Your task to perform on an android device: open app "Pinterest" (install if not already installed) and enter user name: "Switzerland@yahoo.com" and password: "arithmetics" Image 0: 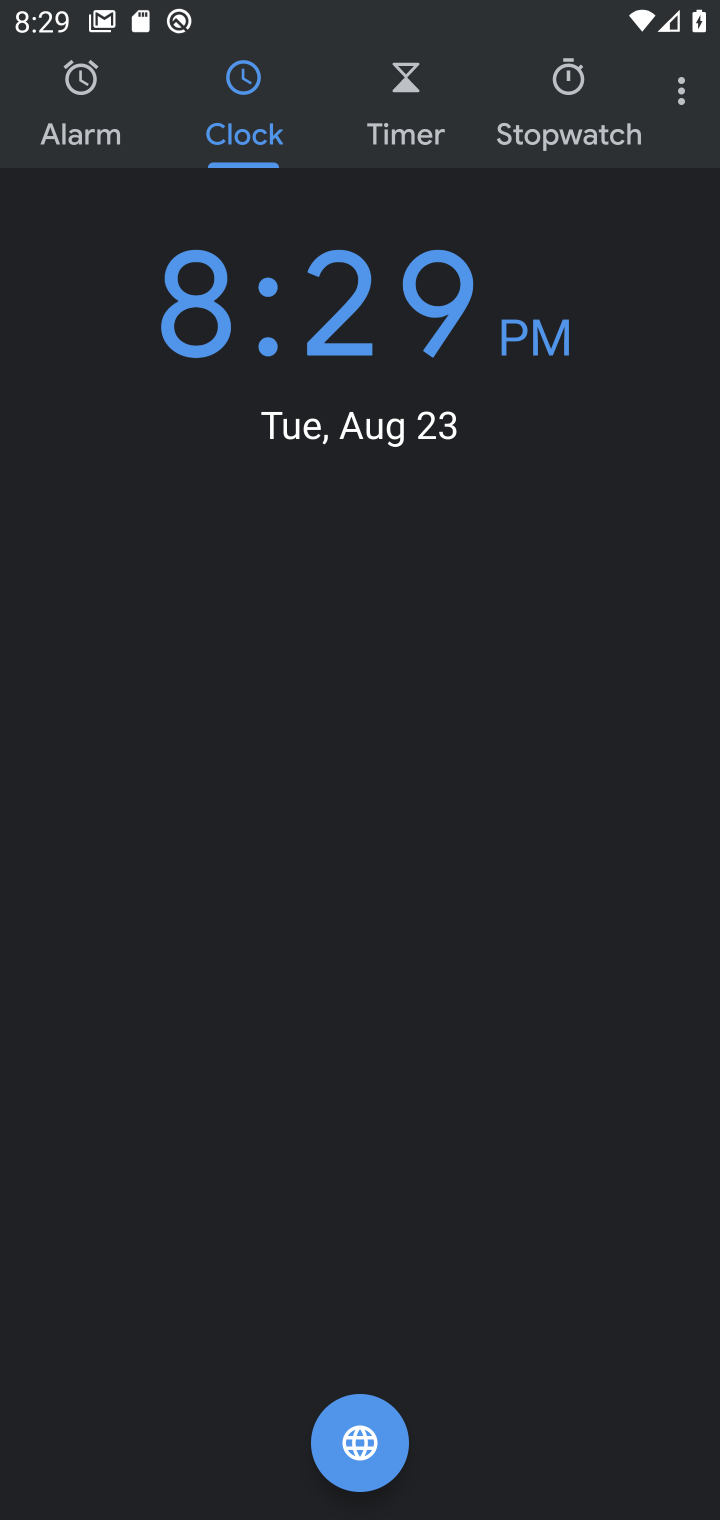
Step 0: press home button
Your task to perform on an android device: open app "Pinterest" (install if not already installed) and enter user name: "Switzerland@yahoo.com" and password: "arithmetics" Image 1: 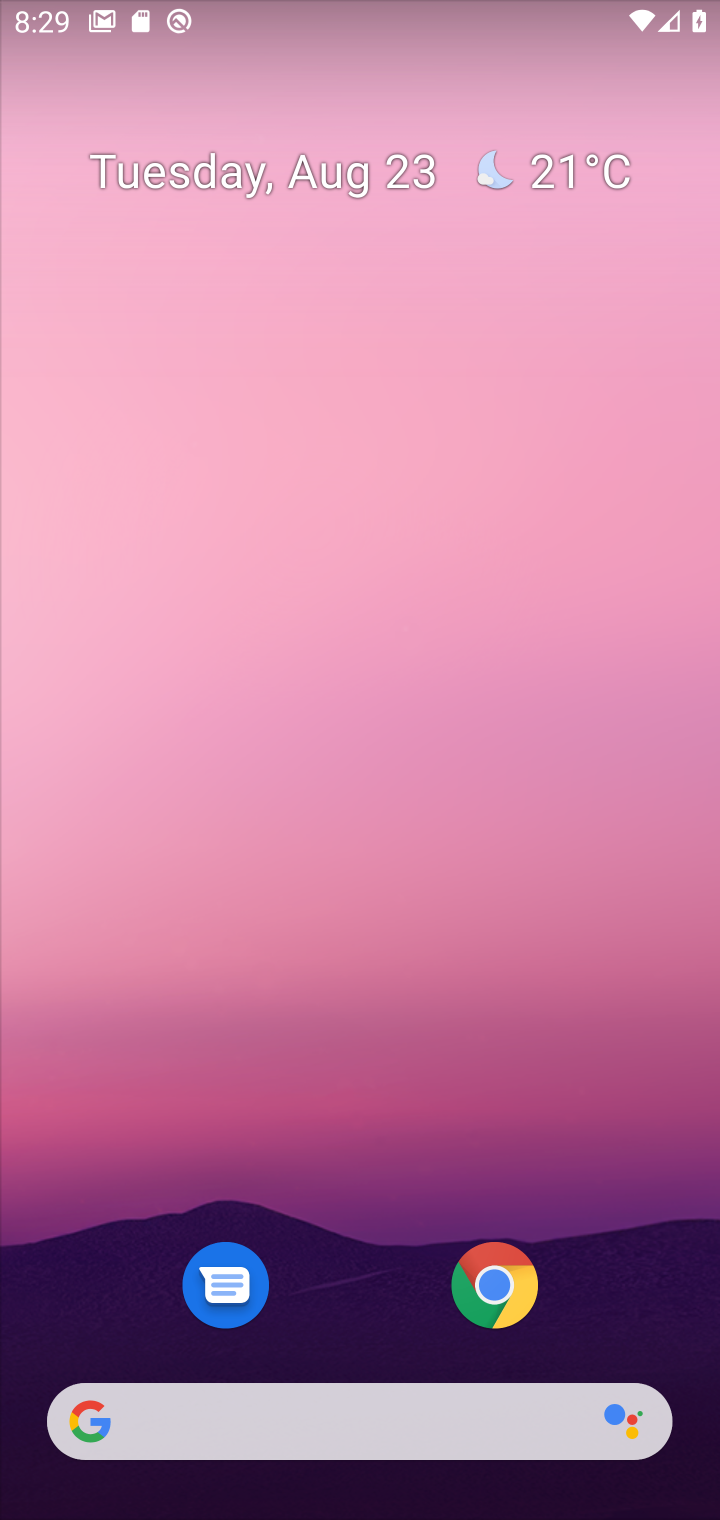
Step 1: drag from (673, 1366) to (601, 256)
Your task to perform on an android device: open app "Pinterest" (install if not already installed) and enter user name: "Switzerland@yahoo.com" and password: "arithmetics" Image 2: 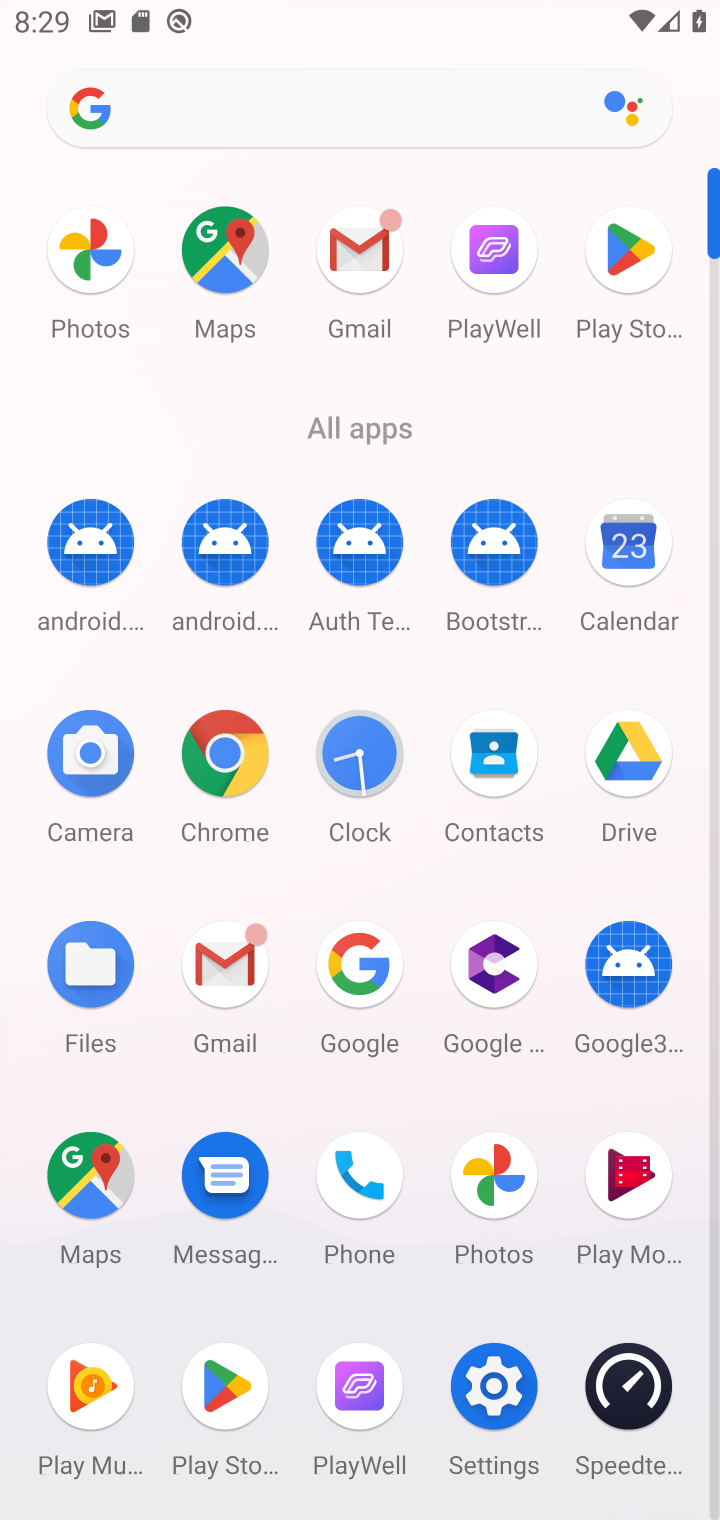
Step 2: click (234, 1383)
Your task to perform on an android device: open app "Pinterest" (install if not already installed) and enter user name: "Switzerland@yahoo.com" and password: "arithmetics" Image 3: 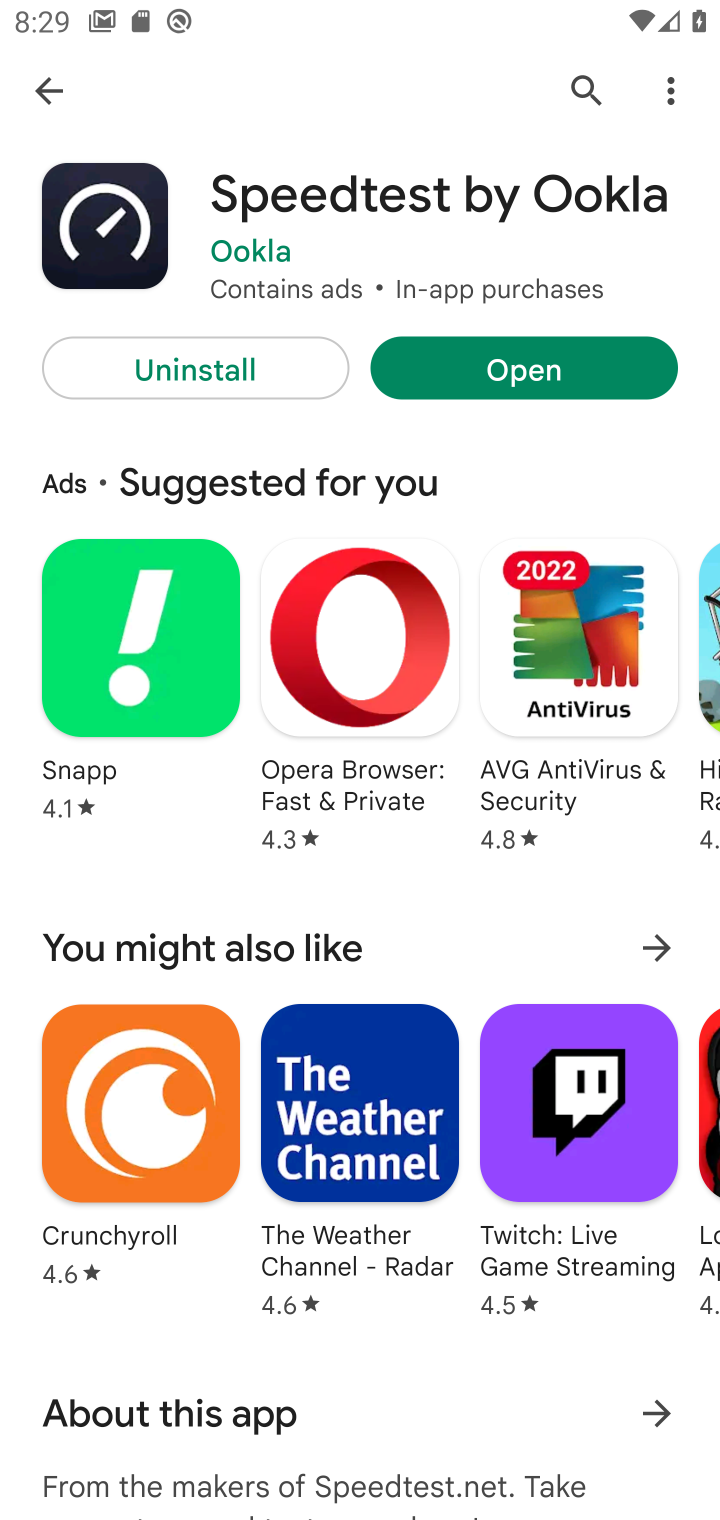
Step 3: click (580, 78)
Your task to perform on an android device: open app "Pinterest" (install if not already installed) and enter user name: "Switzerland@yahoo.com" and password: "arithmetics" Image 4: 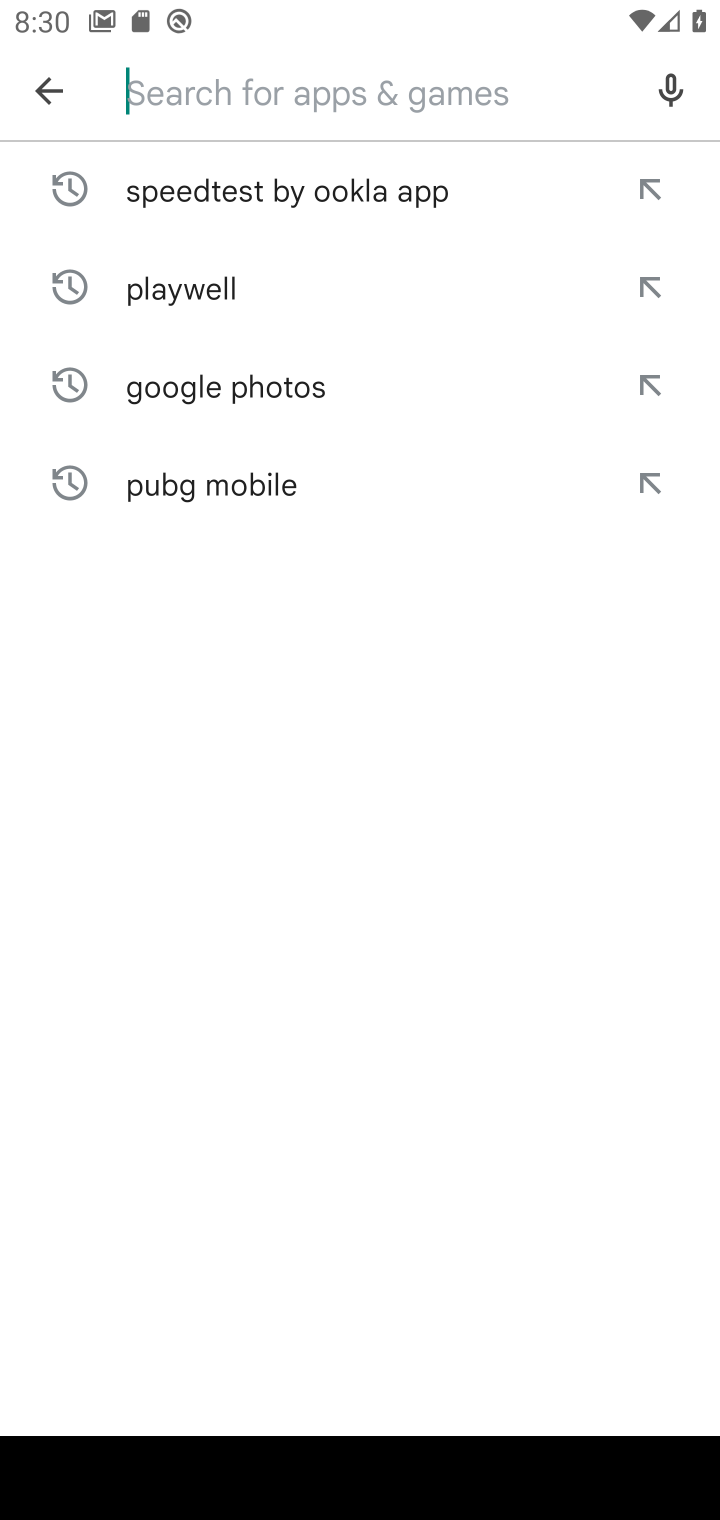
Step 4: type "Pinterest"
Your task to perform on an android device: open app "Pinterest" (install if not already installed) and enter user name: "Switzerland@yahoo.com" and password: "arithmetics" Image 5: 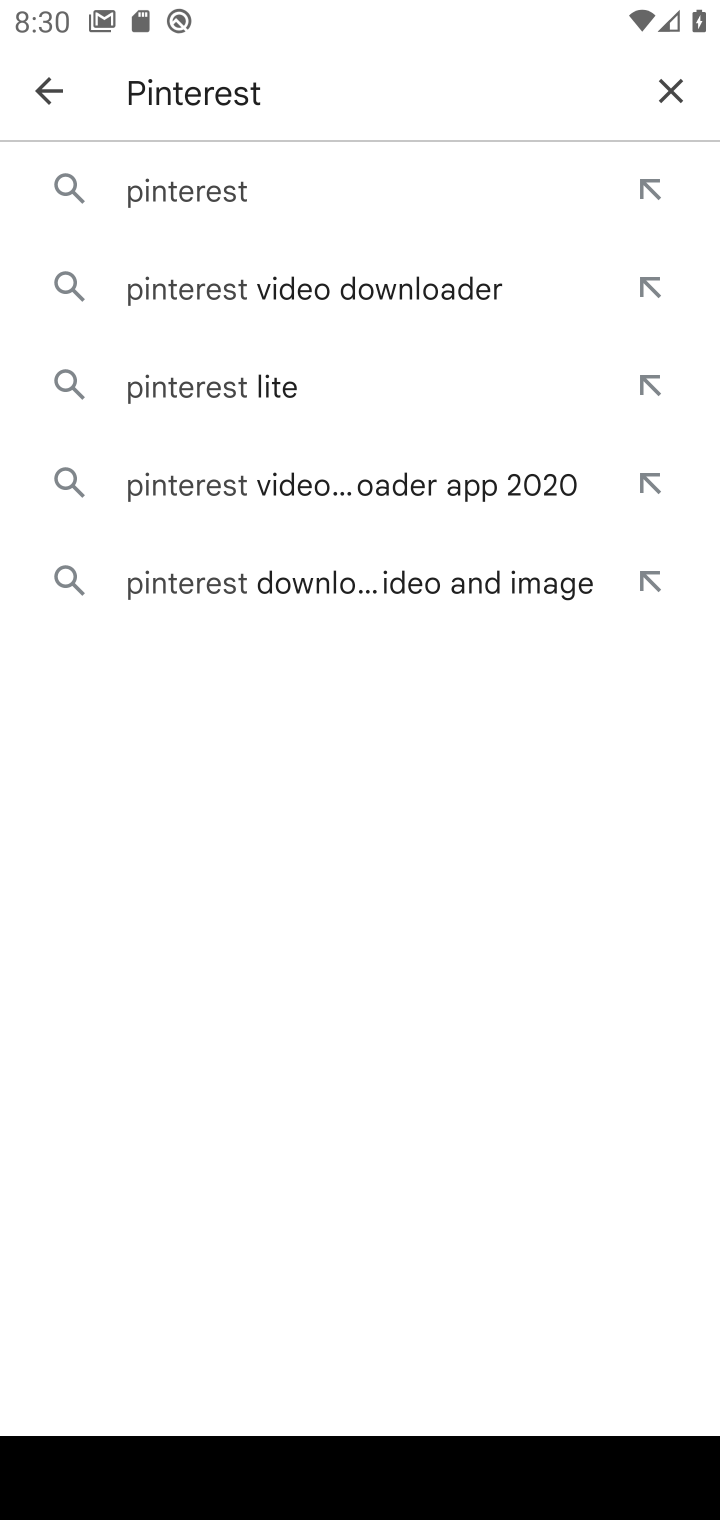
Step 5: click (178, 172)
Your task to perform on an android device: open app "Pinterest" (install if not already installed) and enter user name: "Switzerland@yahoo.com" and password: "arithmetics" Image 6: 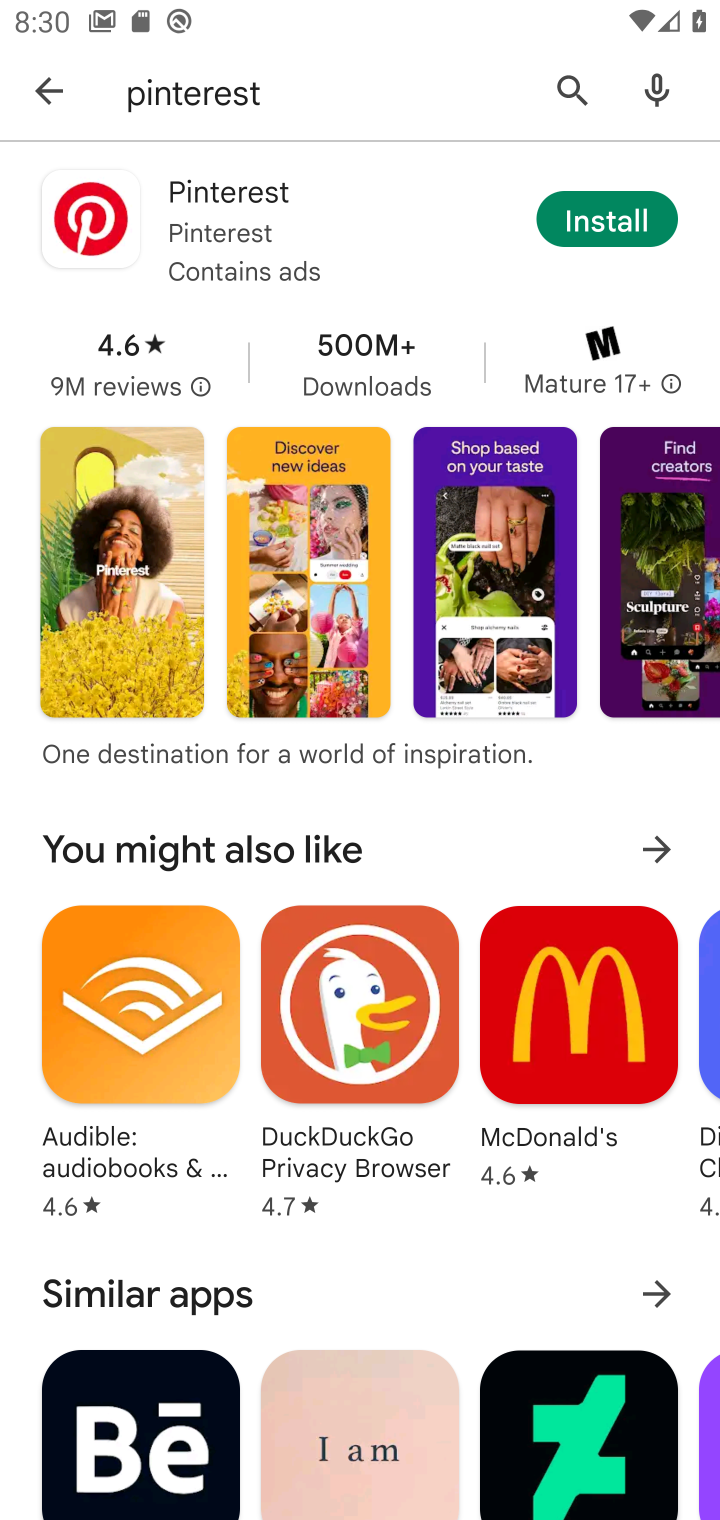
Step 6: click (616, 215)
Your task to perform on an android device: open app "Pinterest" (install if not already installed) and enter user name: "Switzerland@yahoo.com" and password: "arithmetics" Image 7: 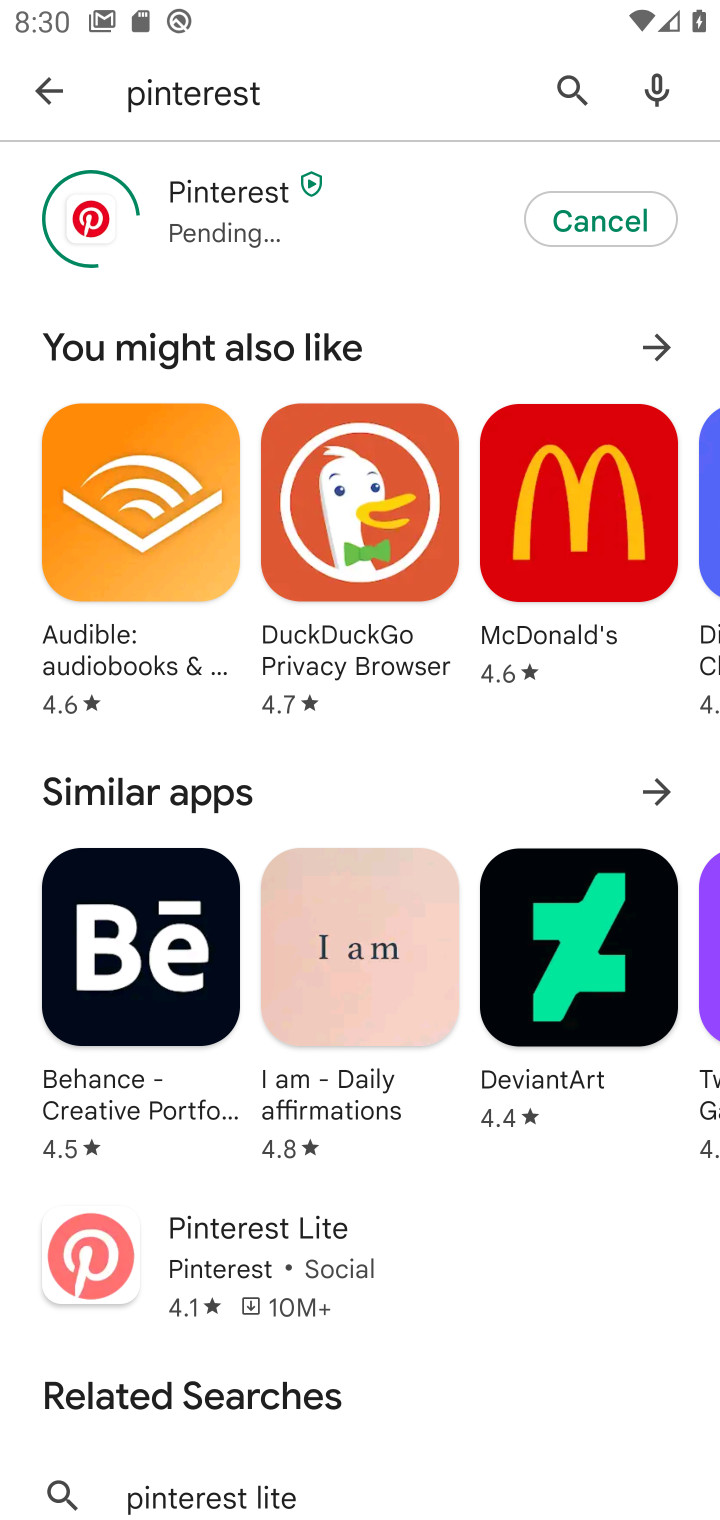
Step 7: click (217, 191)
Your task to perform on an android device: open app "Pinterest" (install if not already installed) and enter user name: "Switzerland@yahoo.com" and password: "arithmetics" Image 8: 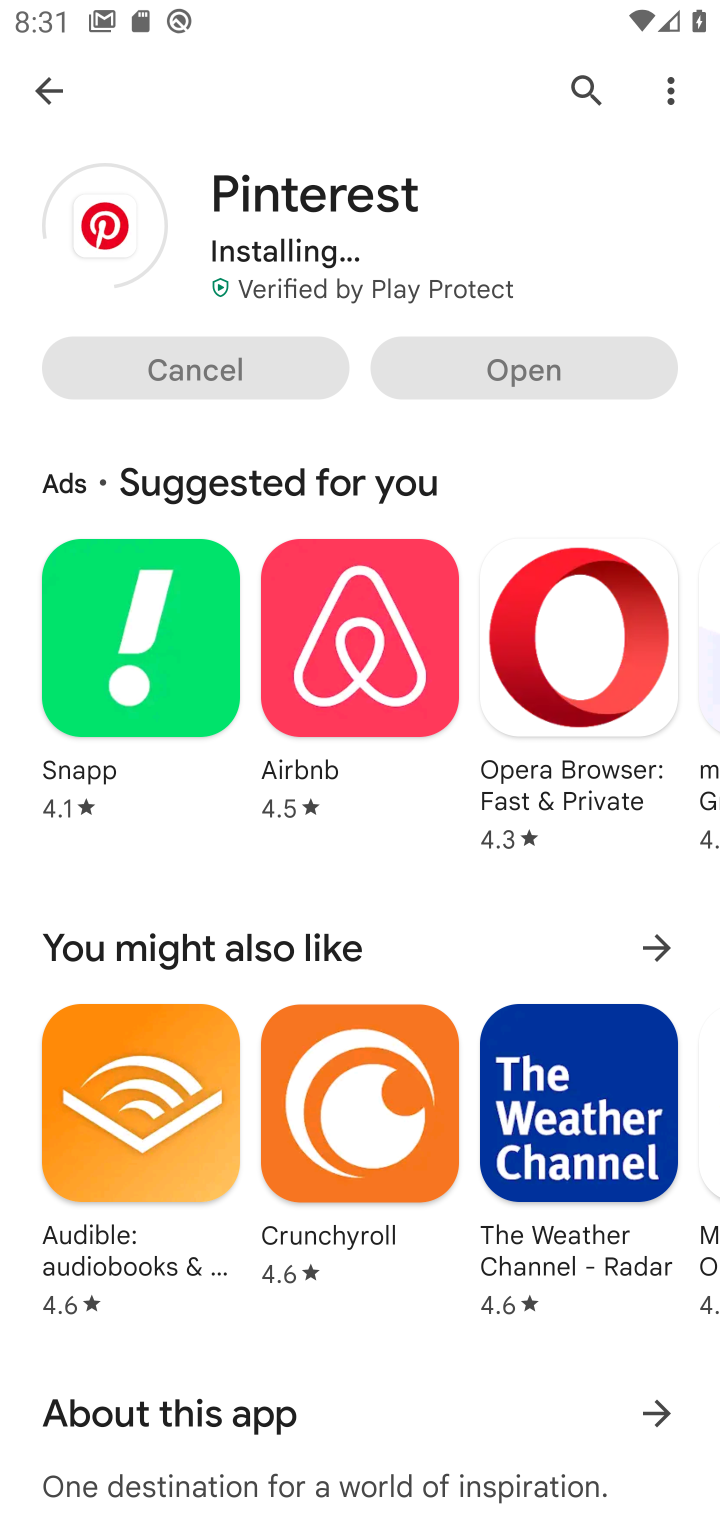
Step 8: click (388, 233)
Your task to perform on an android device: open app "Pinterest" (install if not already installed) and enter user name: "Switzerland@yahoo.com" and password: "arithmetics" Image 9: 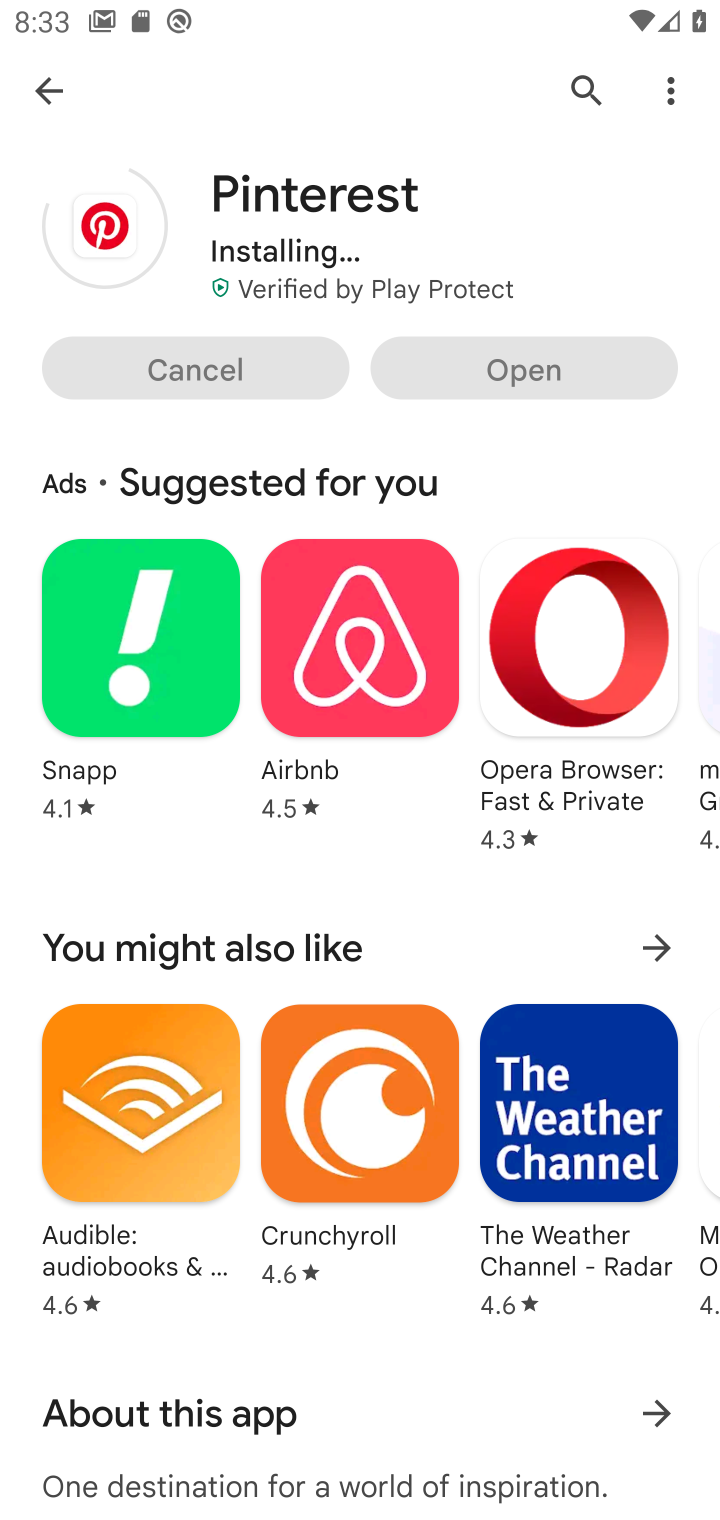
Step 9: click (356, 236)
Your task to perform on an android device: open app "Pinterest" (install if not already installed) and enter user name: "Switzerland@yahoo.com" and password: "arithmetics" Image 10: 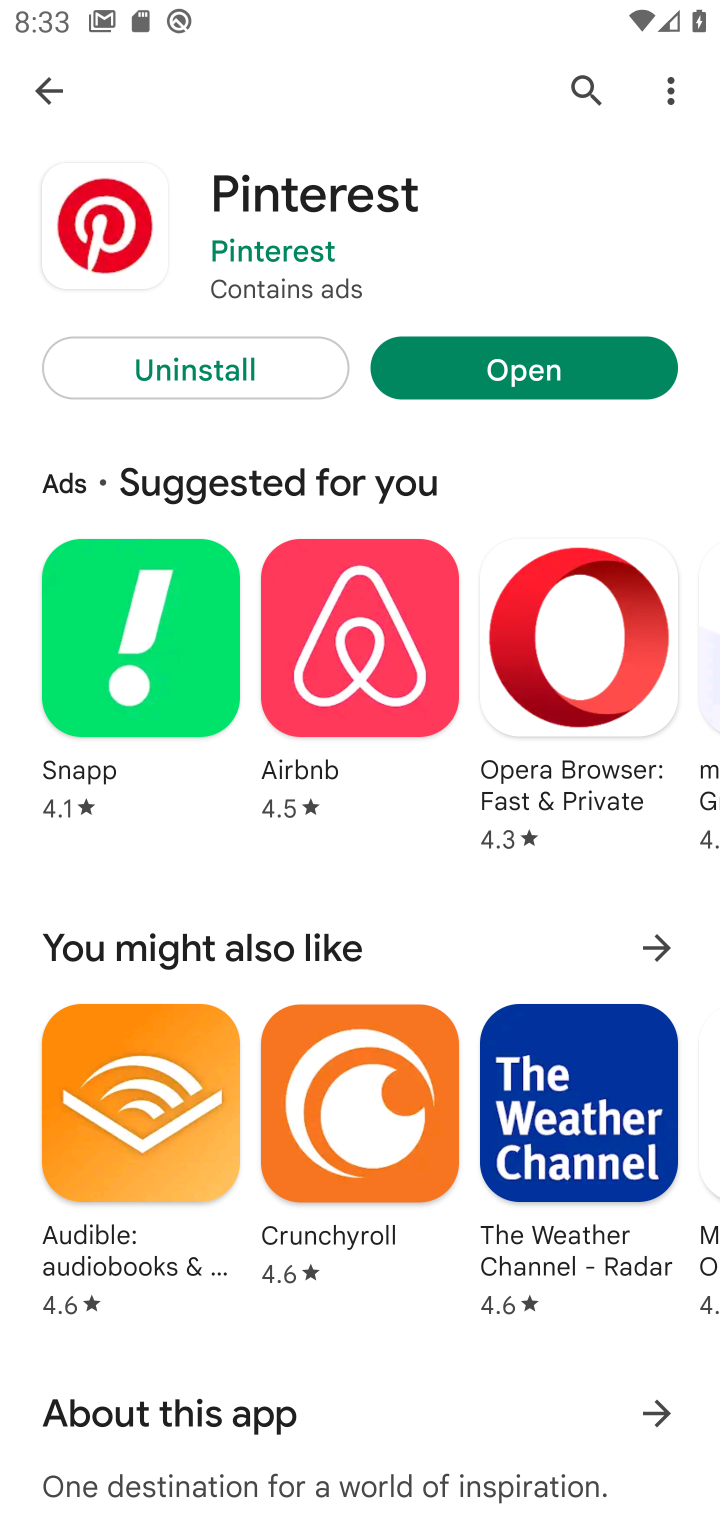
Step 10: click (518, 369)
Your task to perform on an android device: open app "Pinterest" (install if not already installed) and enter user name: "Switzerland@yahoo.com" and password: "arithmetics" Image 11: 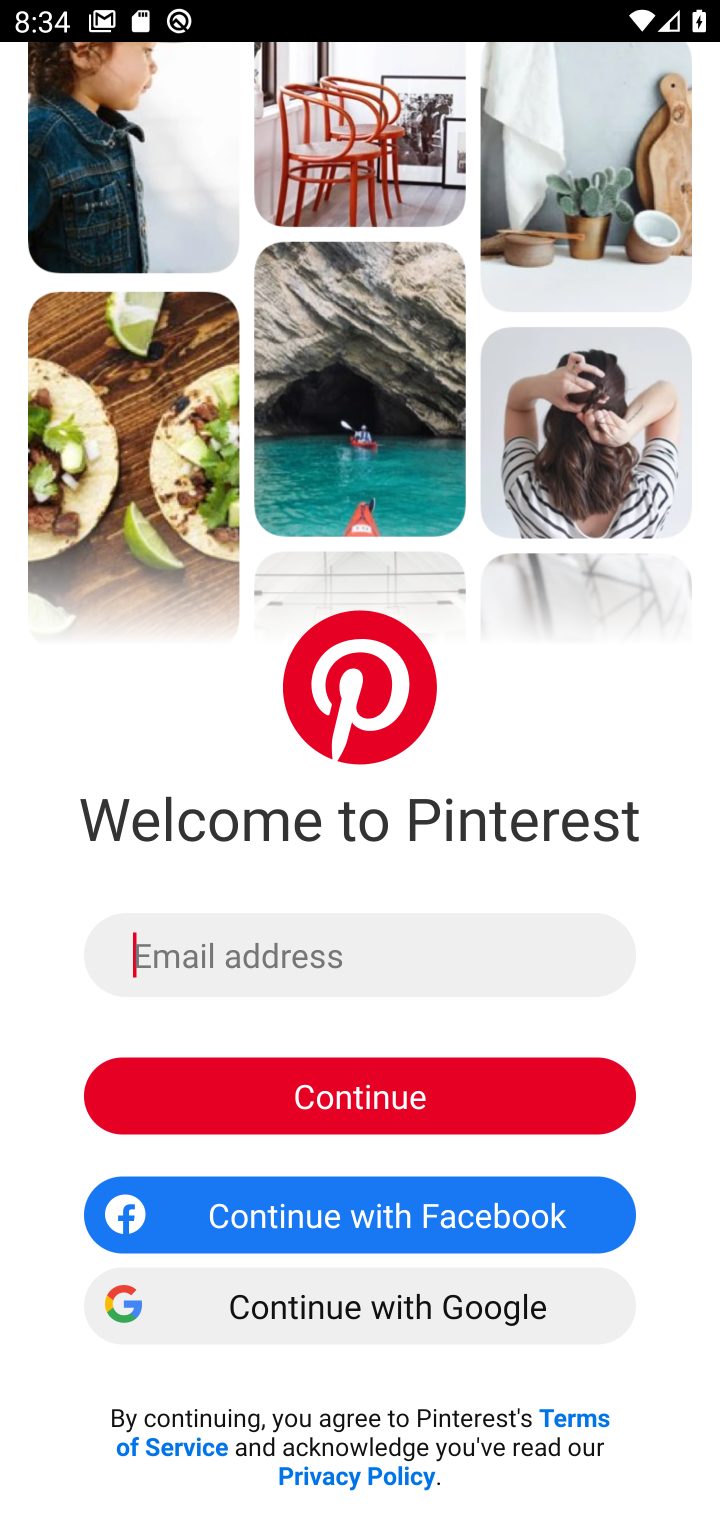
Step 11: type "Switzerland@yahoo.com"
Your task to perform on an android device: open app "Pinterest" (install if not already installed) and enter user name: "Switzerland@yahoo.com" and password: "arithmetics" Image 12: 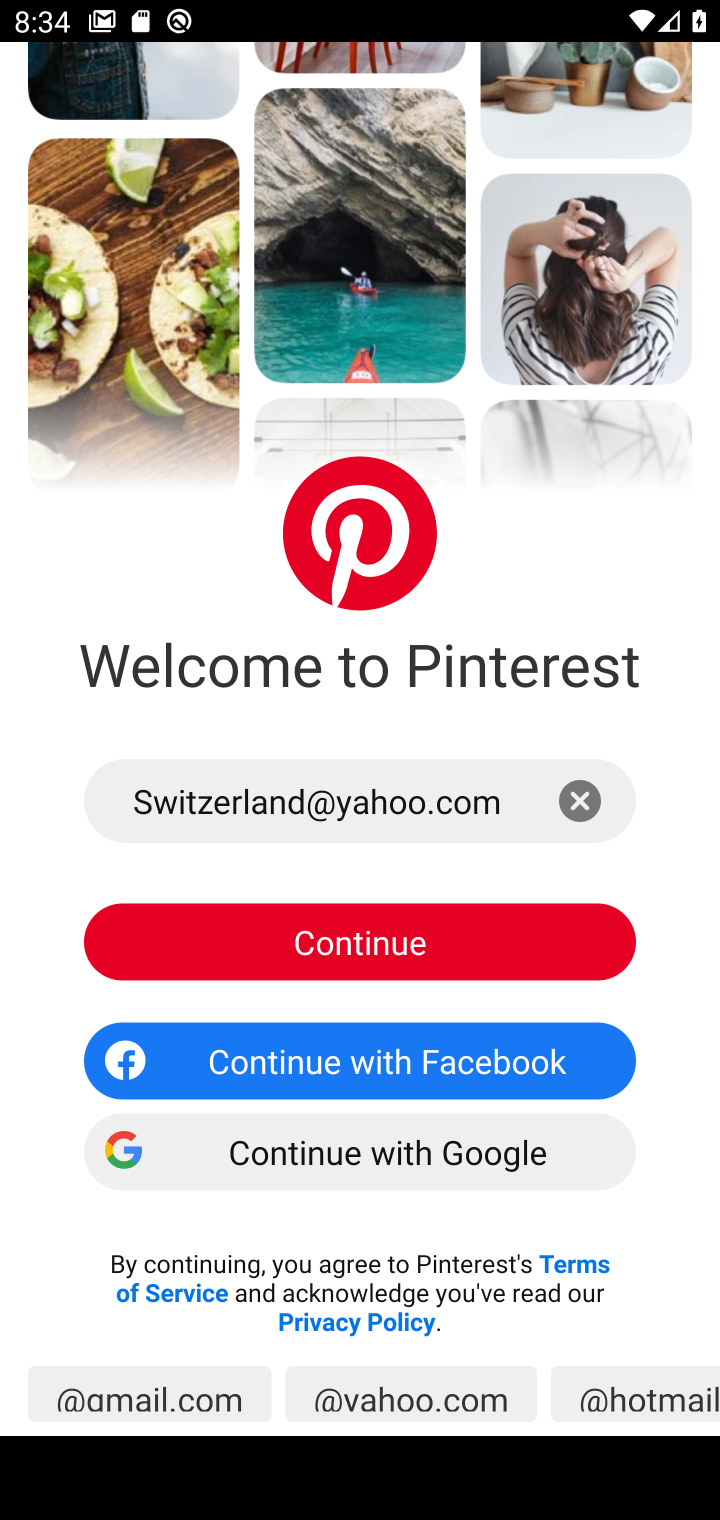
Step 12: click (346, 941)
Your task to perform on an android device: open app "Pinterest" (install if not already installed) and enter user name: "Switzerland@yahoo.com" and password: "arithmetics" Image 13: 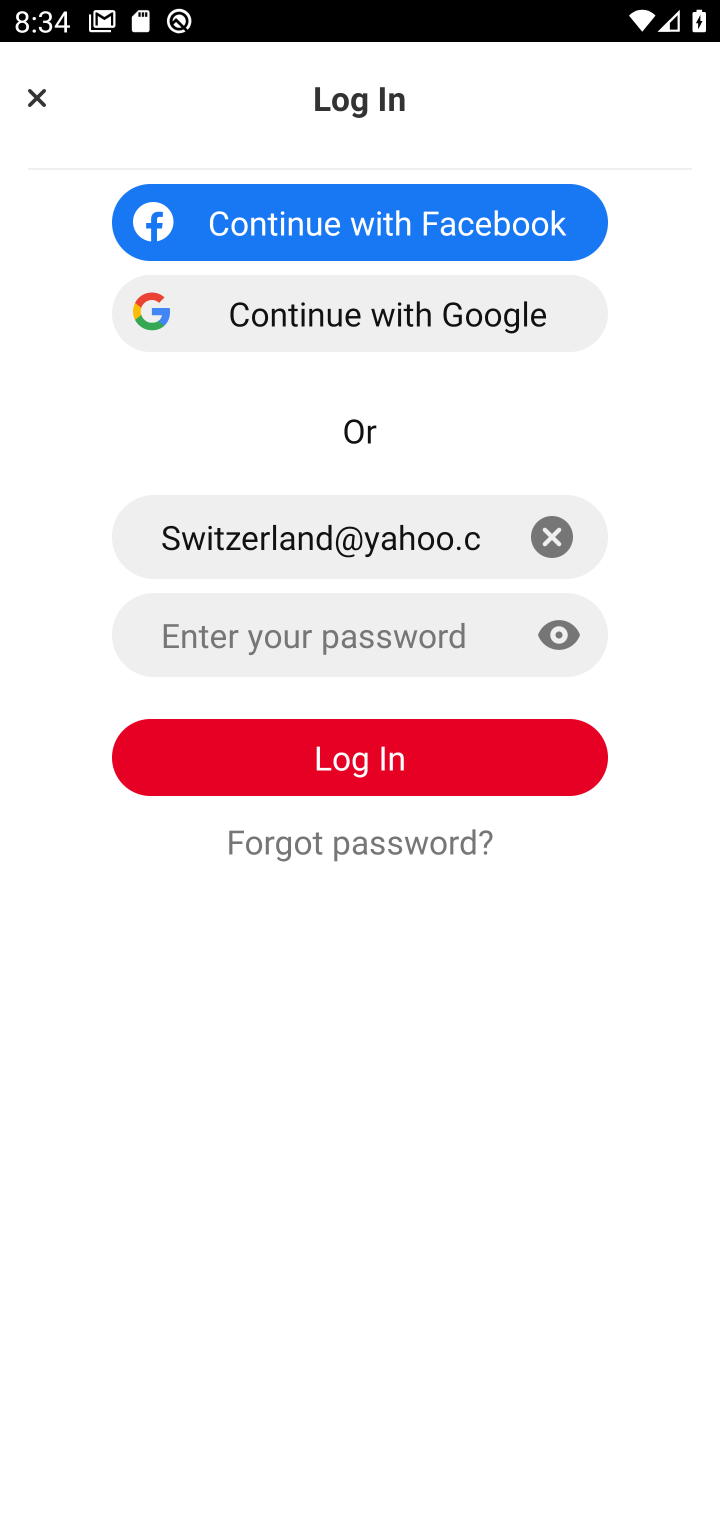
Step 13: click (338, 630)
Your task to perform on an android device: open app "Pinterest" (install if not already installed) and enter user name: "Switzerland@yahoo.com" and password: "arithmetics" Image 14: 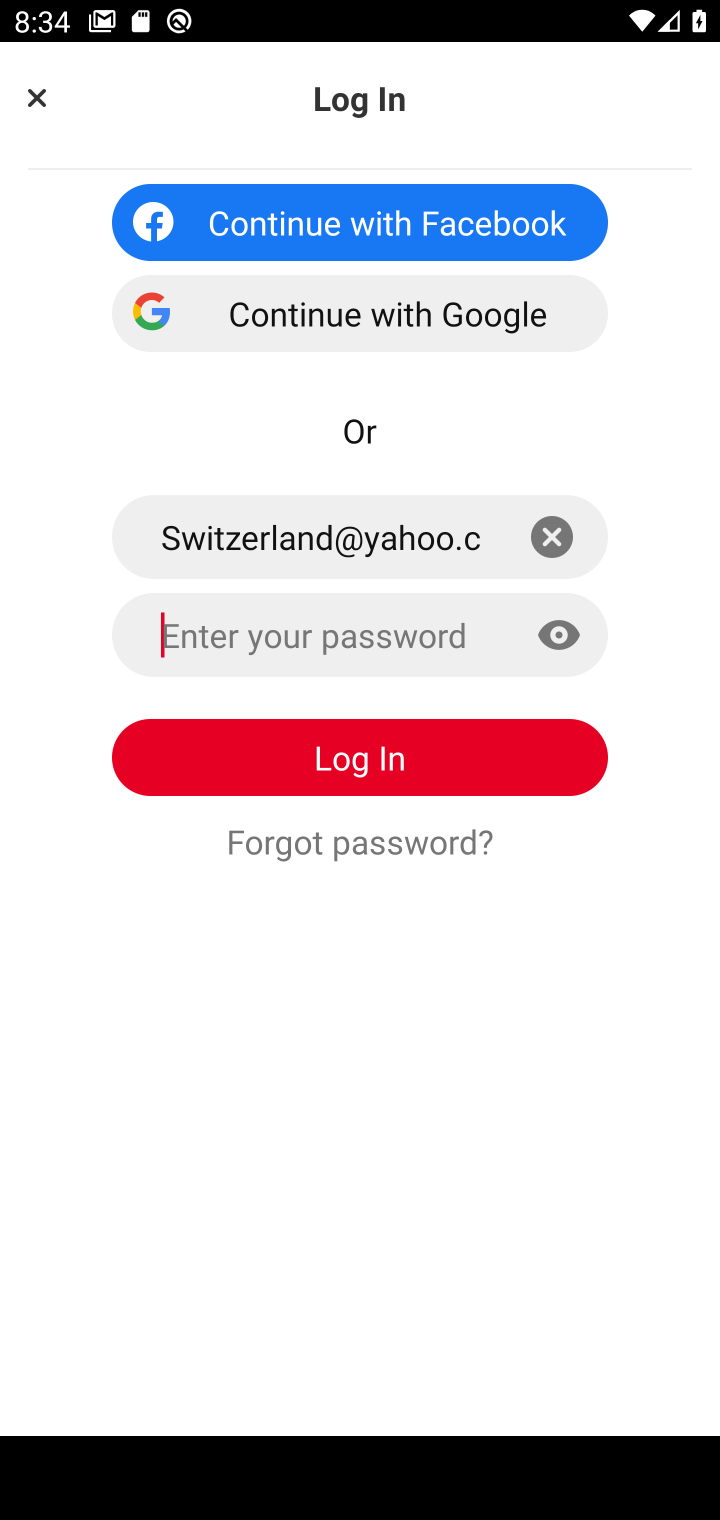
Step 14: type "arithmetics"
Your task to perform on an android device: open app "Pinterest" (install if not already installed) and enter user name: "Switzerland@yahoo.com" and password: "arithmetics" Image 15: 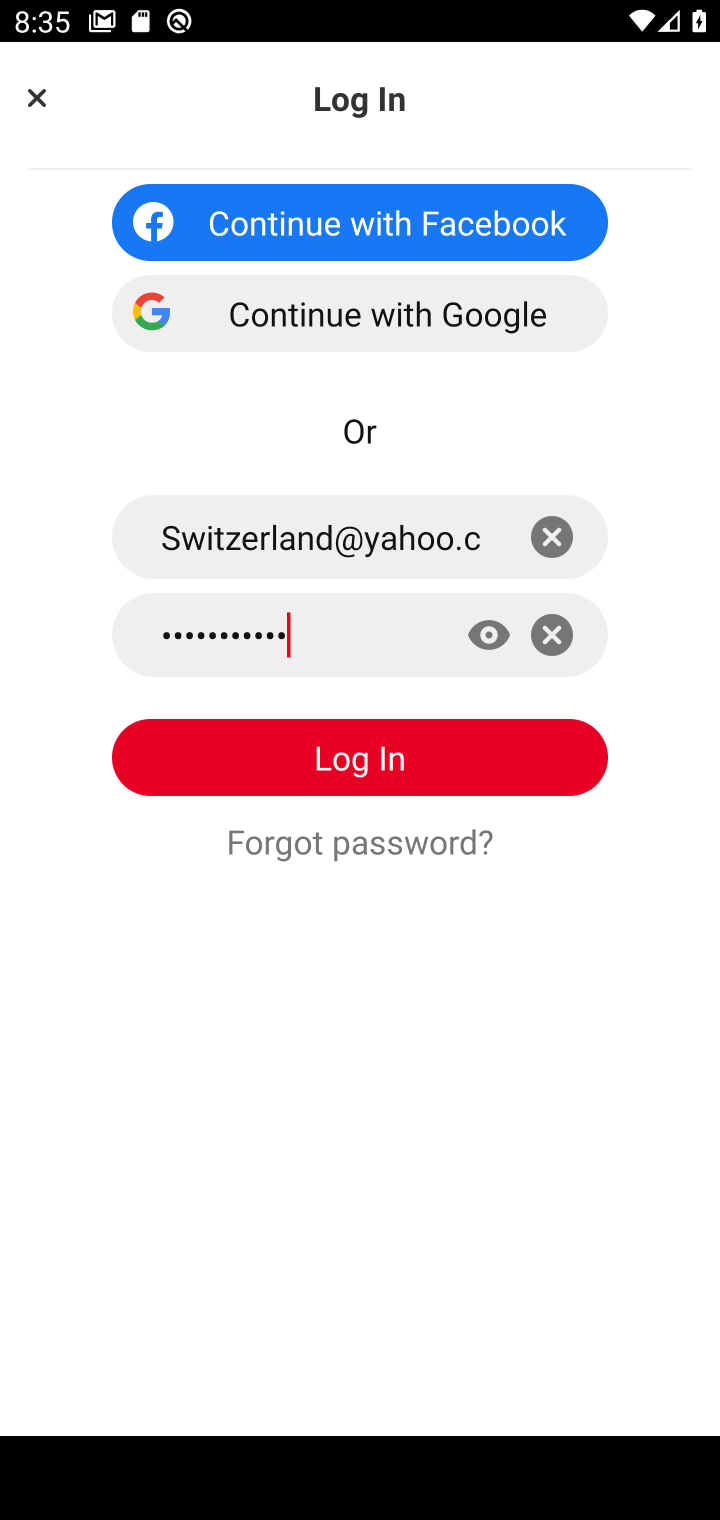
Step 15: task complete